Your task to perform on an android device: check the backup settings in the google photos Image 0: 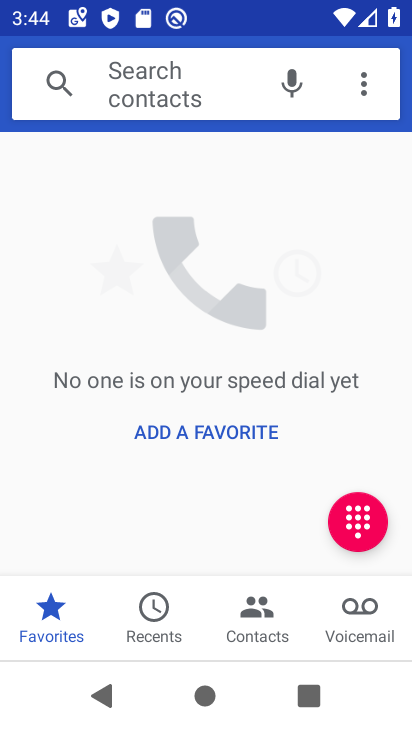
Step 0: press back button
Your task to perform on an android device: check the backup settings in the google photos Image 1: 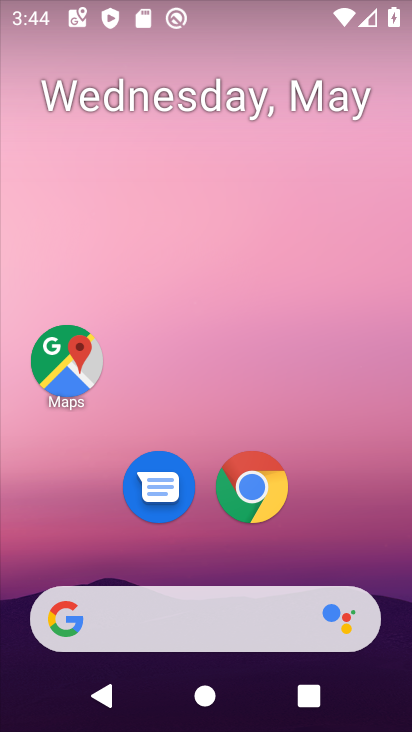
Step 1: drag from (337, 531) to (303, 15)
Your task to perform on an android device: check the backup settings in the google photos Image 2: 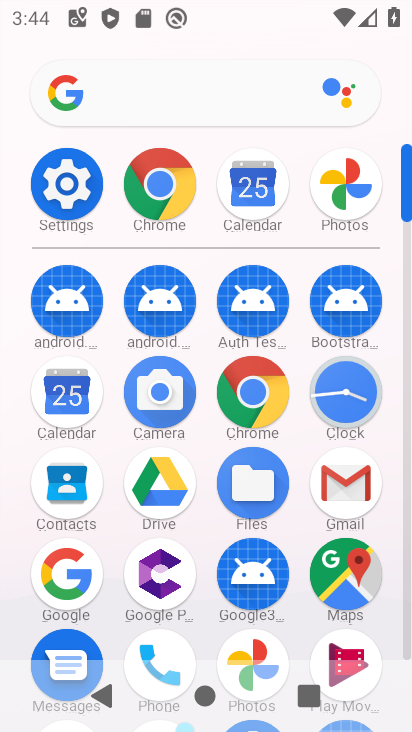
Step 2: drag from (6, 470) to (5, 253)
Your task to perform on an android device: check the backup settings in the google photos Image 3: 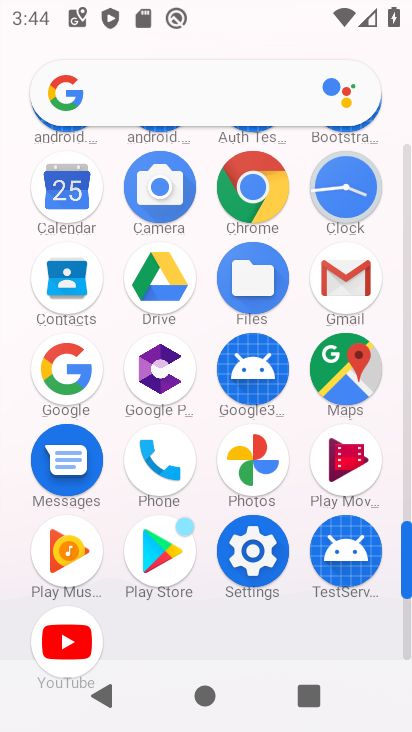
Step 3: click (252, 454)
Your task to perform on an android device: check the backup settings in the google photos Image 4: 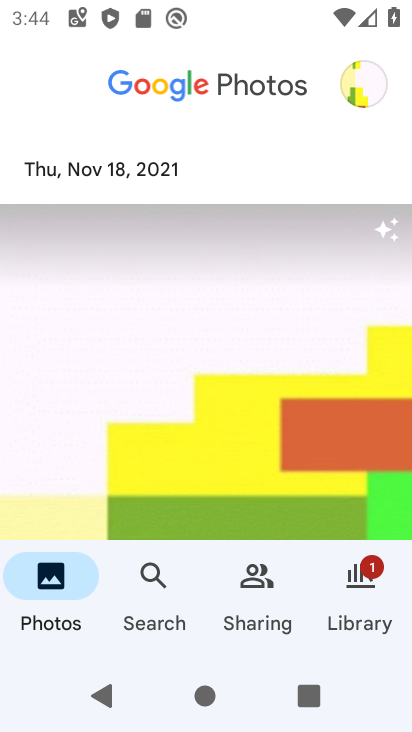
Step 4: click (355, 599)
Your task to perform on an android device: check the backup settings in the google photos Image 5: 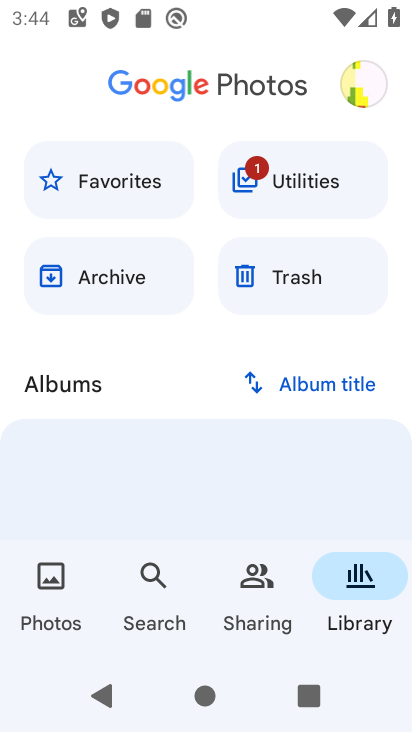
Step 5: click (360, 83)
Your task to perform on an android device: check the backup settings in the google photos Image 6: 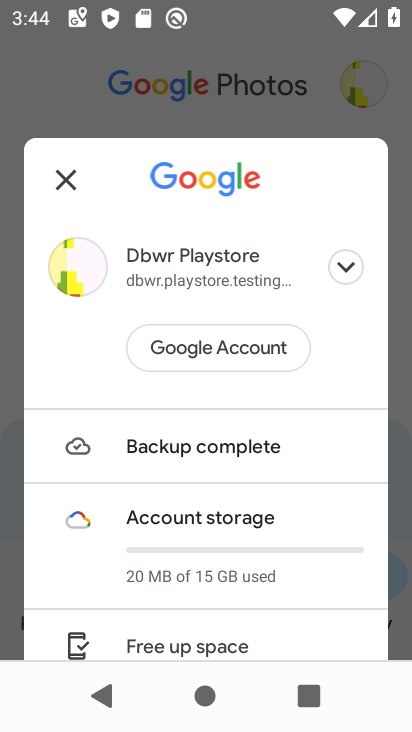
Step 6: drag from (300, 616) to (318, 267)
Your task to perform on an android device: check the backup settings in the google photos Image 7: 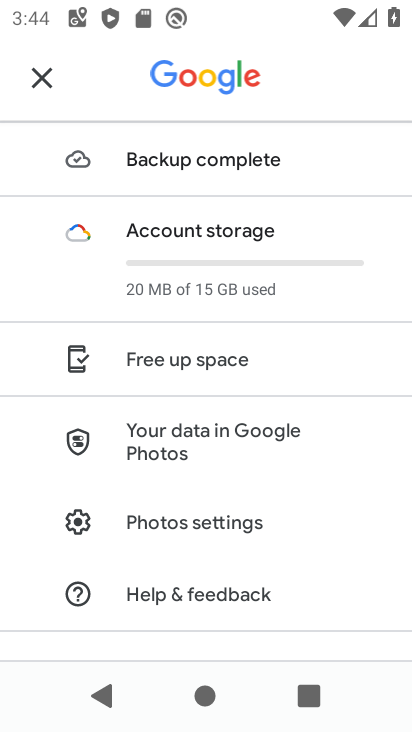
Step 7: click (235, 518)
Your task to perform on an android device: check the backup settings in the google photos Image 8: 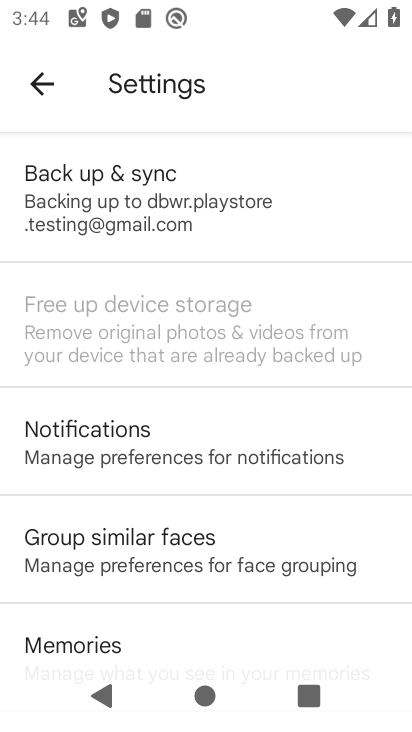
Step 8: click (244, 212)
Your task to perform on an android device: check the backup settings in the google photos Image 9: 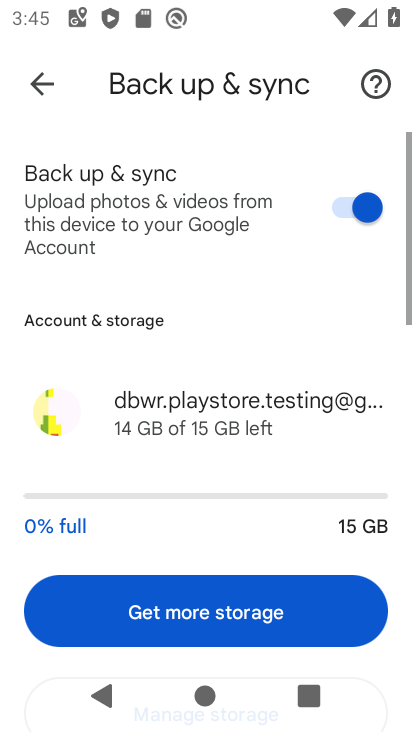
Step 9: task complete